Your task to perform on an android device: turn on javascript in the chrome app Image 0: 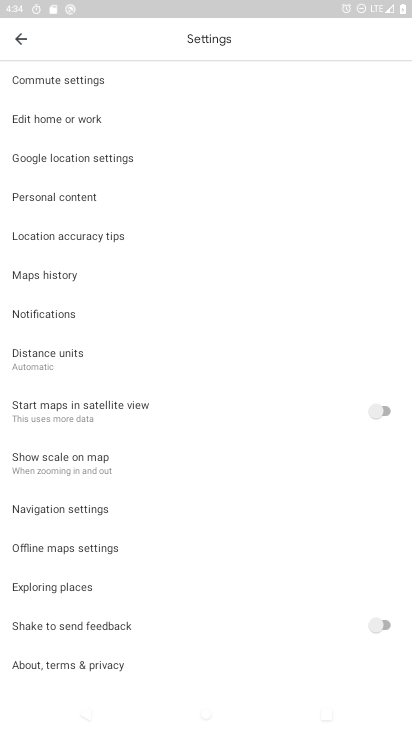
Step 0: press home button
Your task to perform on an android device: turn on javascript in the chrome app Image 1: 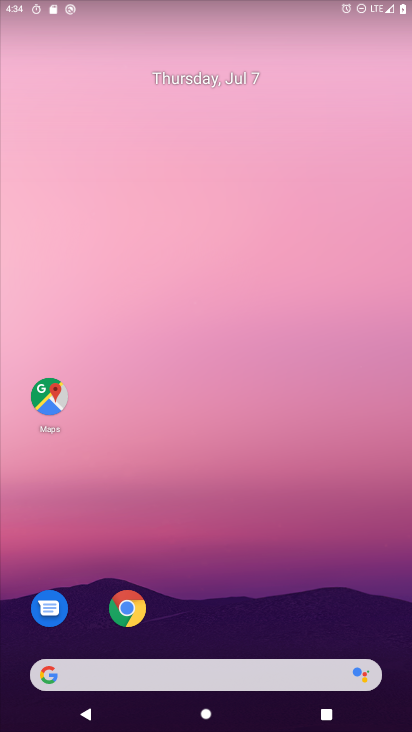
Step 1: click (126, 613)
Your task to perform on an android device: turn on javascript in the chrome app Image 2: 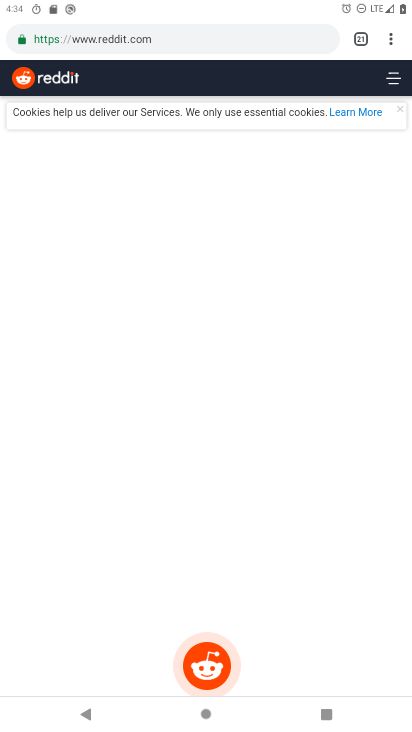
Step 2: click (392, 45)
Your task to perform on an android device: turn on javascript in the chrome app Image 3: 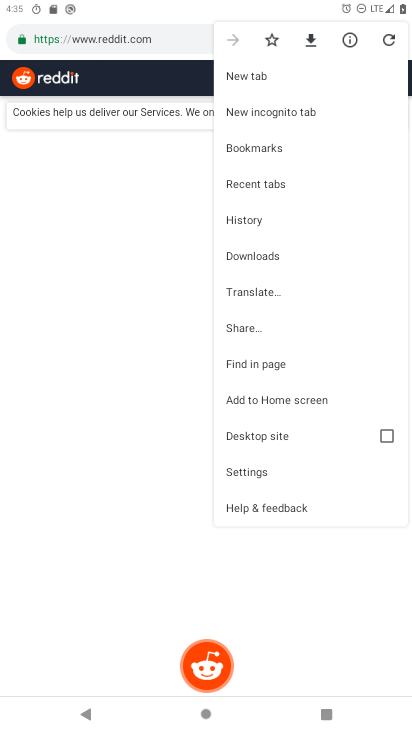
Step 3: click (250, 470)
Your task to perform on an android device: turn on javascript in the chrome app Image 4: 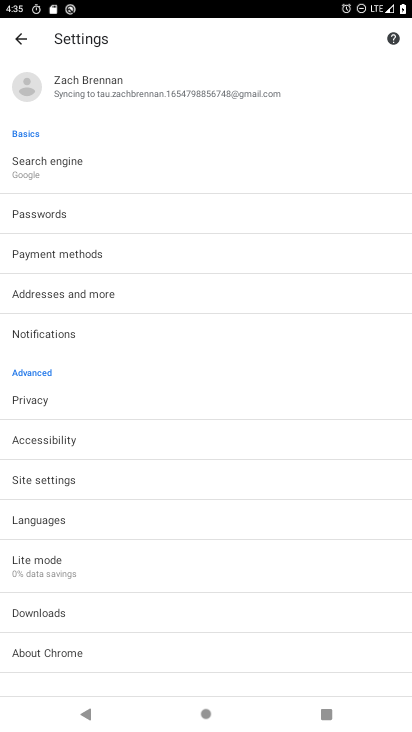
Step 4: click (57, 482)
Your task to perform on an android device: turn on javascript in the chrome app Image 5: 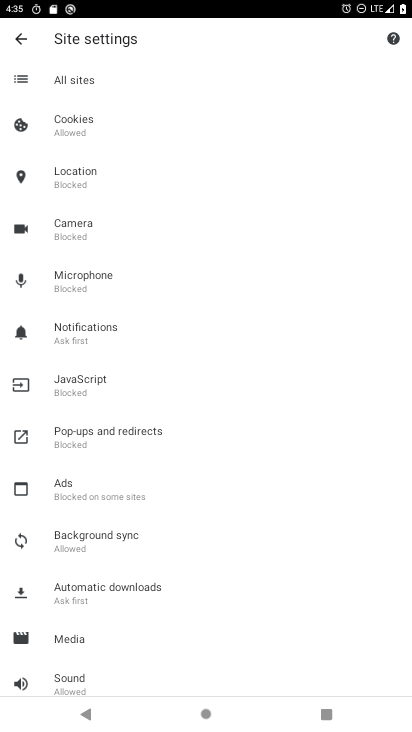
Step 5: click (67, 387)
Your task to perform on an android device: turn on javascript in the chrome app Image 6: 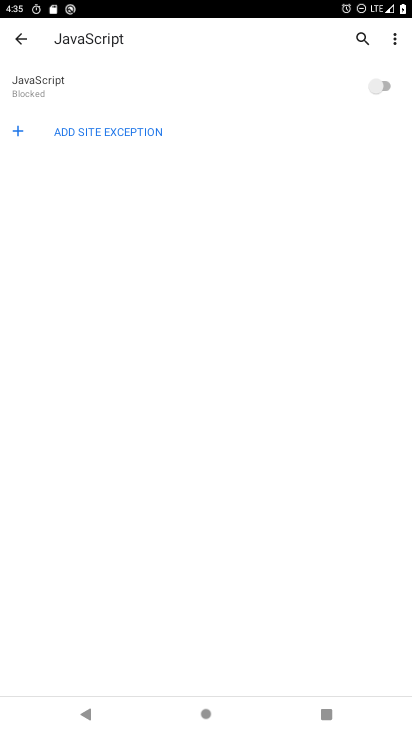
Step 6: click (385, 87)
Your task to perform on an android device: turn on javascript in the chrome app Image 7: 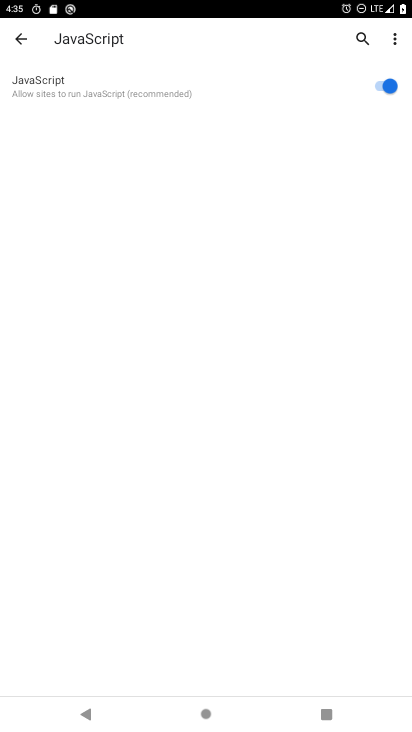
Step 7: task complete